Your task to perform on an android device: Play the last video I watched on Youtube Image 0: 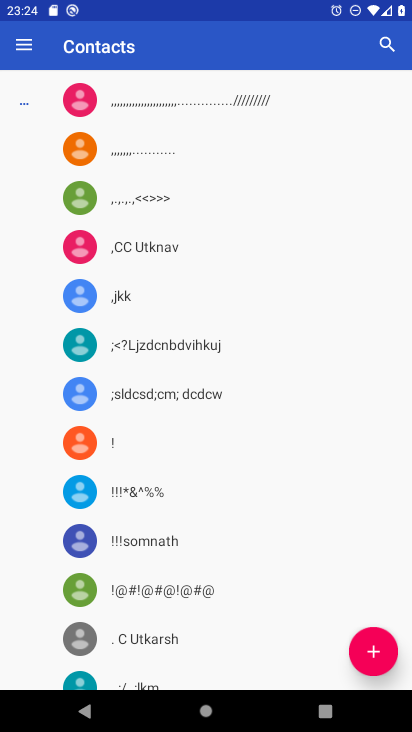
Step 0: press home button
Your task to perform on an android device: Play the last video I watched on Youtube Image 1: 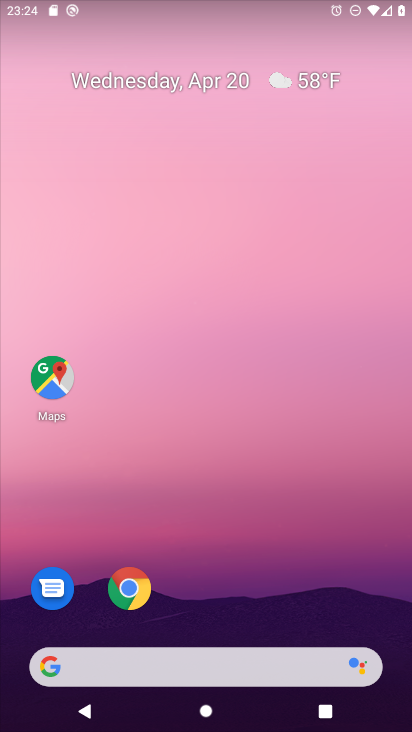
Step 1: drag from (219, 723) to (214, 135)
Your task to perform on an android device: Play the last video I watched on Youtube Image 2: 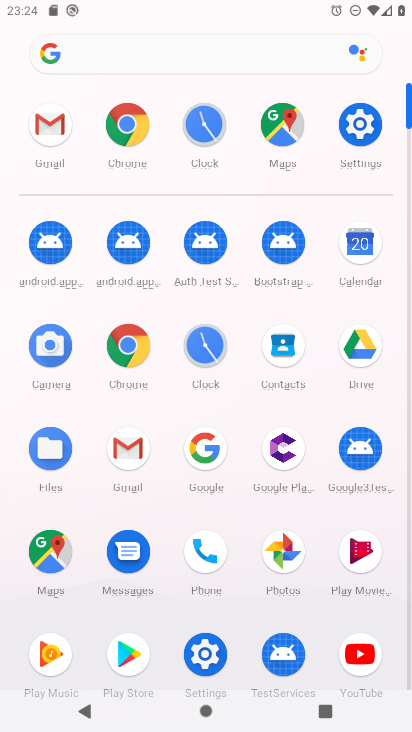
Step 2: click (358, 647)
Your task to perform on an android device: Play the last video I watched on Youtube Image 3: 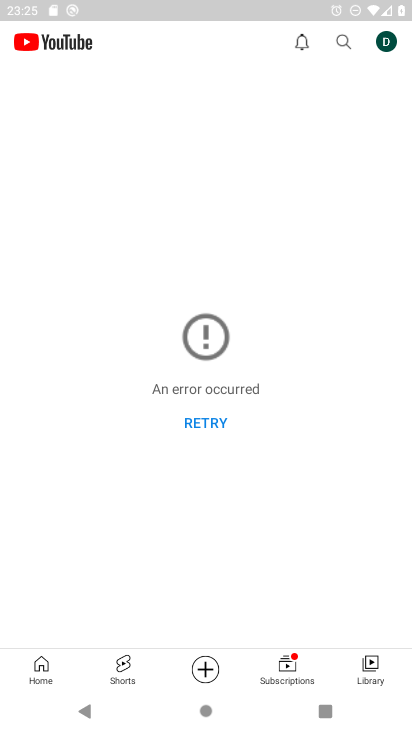
Step 3: click (375, 666)
Your task to perform on an android device: Play the last video I watched on Youtube Image 4: 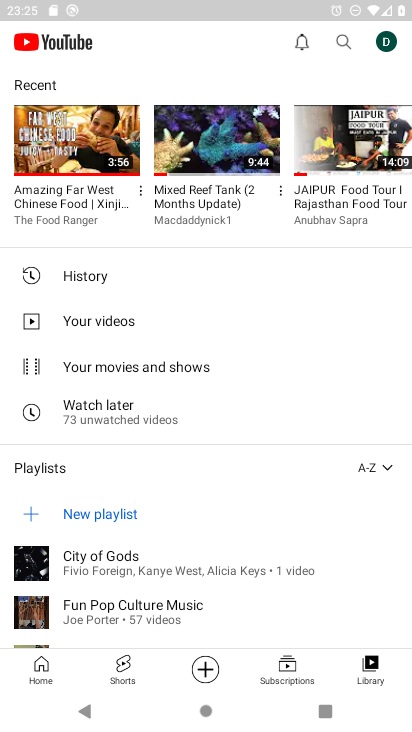
Step 4: click (84, 154)
Your task to perform on an android device: Play the last video I watched on Youtube Image 5: 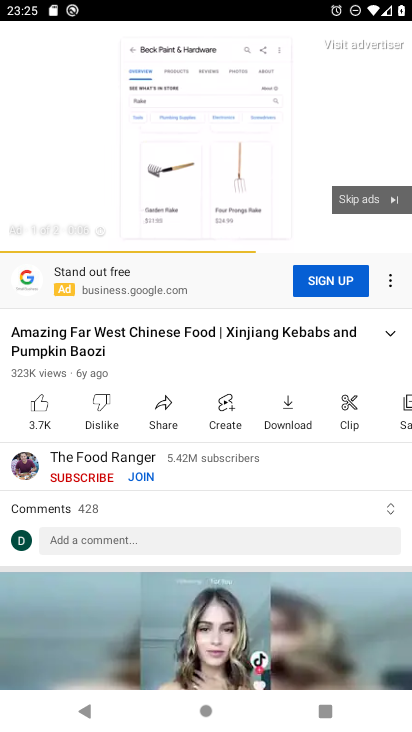
Step 5: click (355, 202)
Your task to perform on an android device: Play the last video I watched on Youtube Image 6: 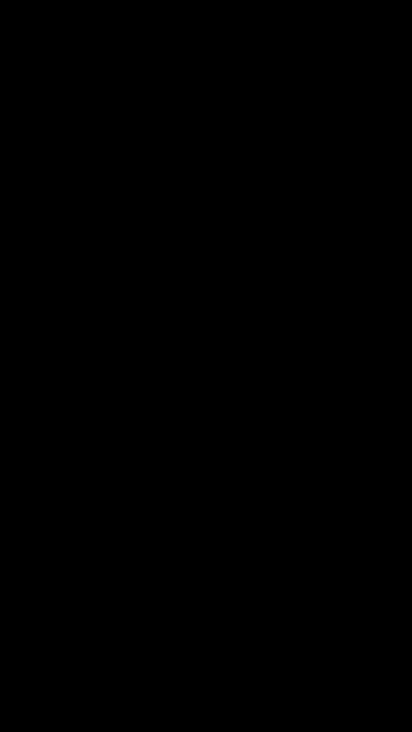
Step 6: task complete